Your task to perform on an android device: toggle notification dots Image 0: 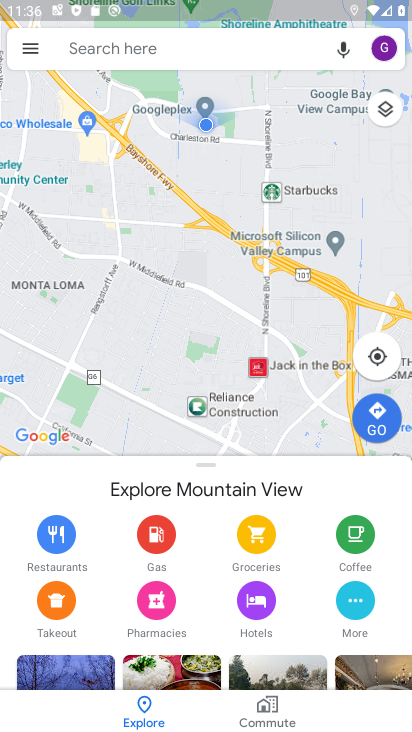
Step 0: press home button
Your task to perform on an android device: toggle notification dots Image 1: 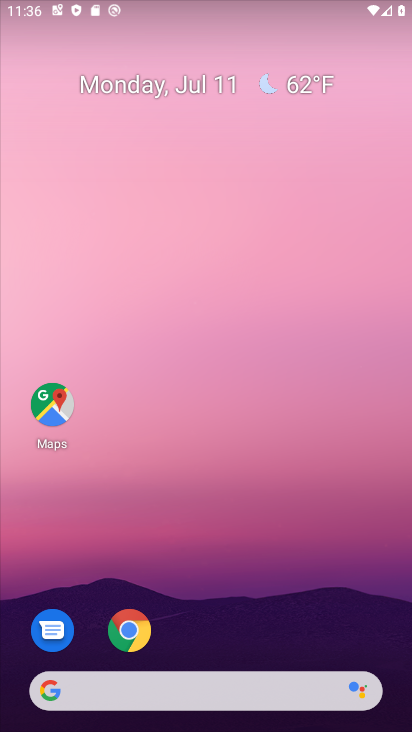
Step 1: drag from (179, 649) to (203, 74)
Your task to perform on an android device: toggle notification dots Image 2: 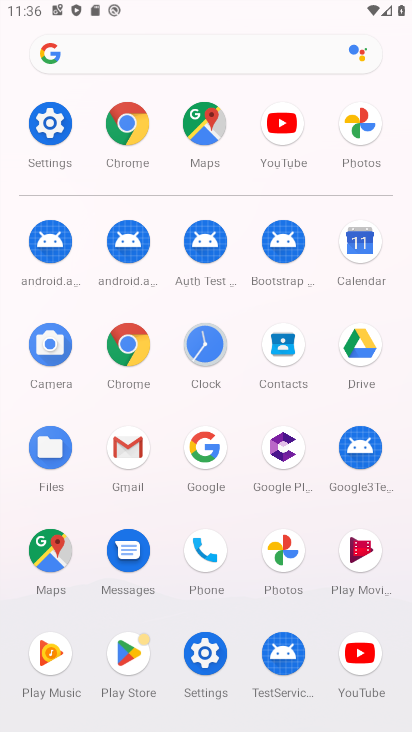
Step 2: click (48, 112)
Your task to perform on an android device: toggle notification dots Image 3: 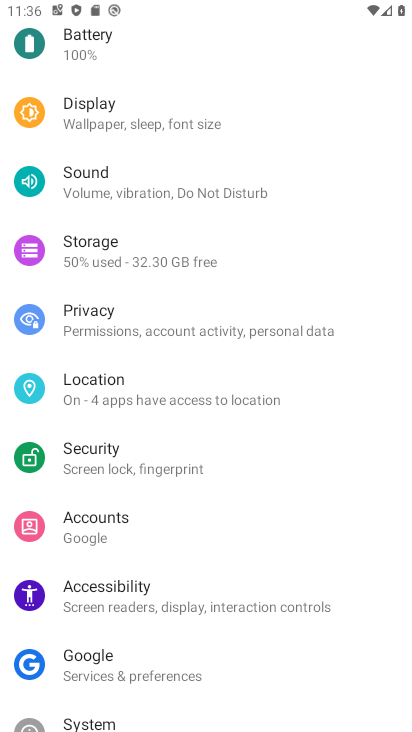
Step 3: drag from (155, 146) to (176, 437)
Your task to perform on an android device: toggle notification dots Image 4: 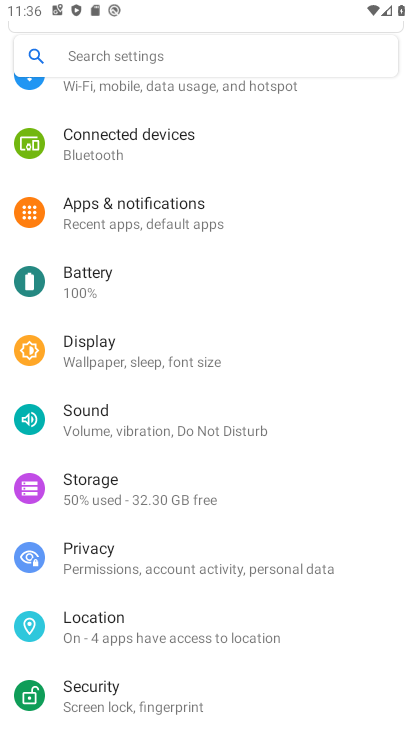
Step 4: click (147, 219)
Your task to perform on an android device: toggle notification dots Image 5: 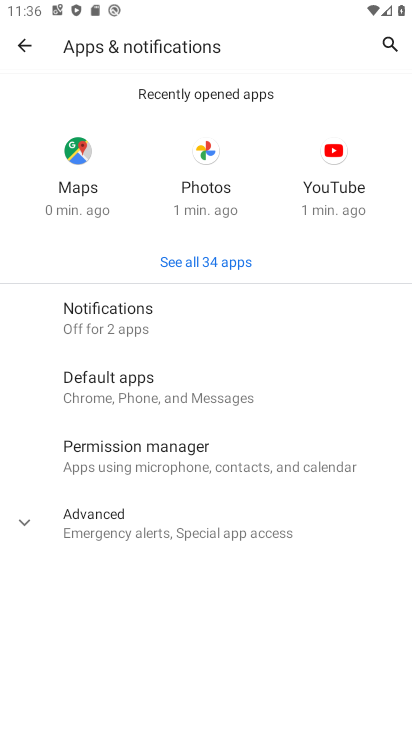
Step 5: click (158, 320)
Your task to perform on an android device: toggle notification dots Image 6: 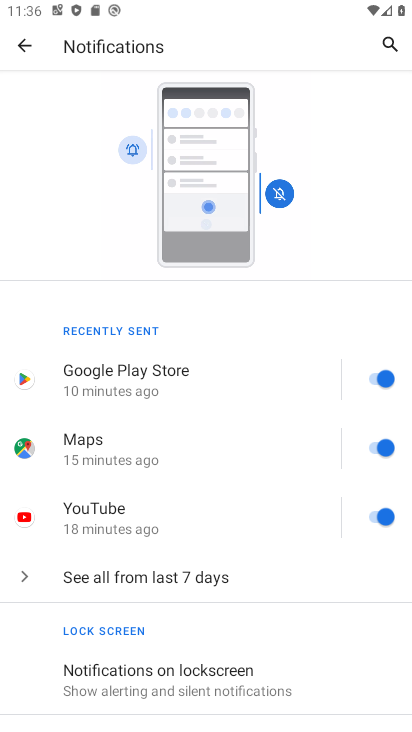
Step 6: drag from (199, 630) to (202, 91)
Your task to perform on an android device: toggle notification dots Image 7: 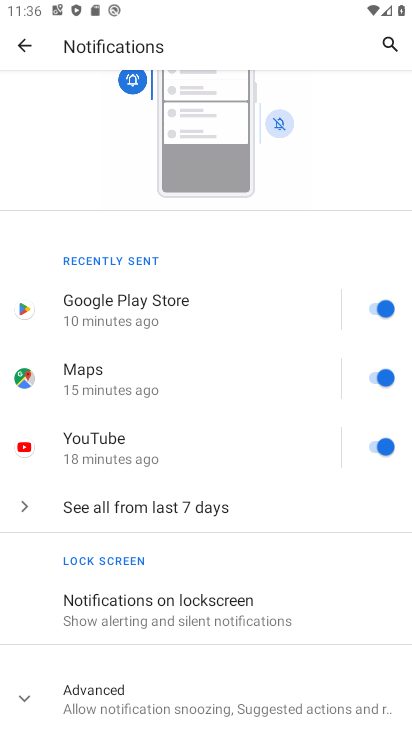
Step 7: click (156, 698)
Your task to perform on an android device: toggle notification dots Image 8: 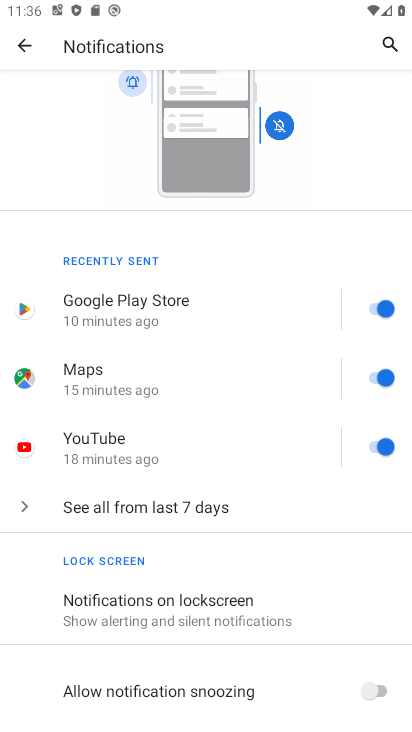
Step 8: drag from (212, 665) to (263, 254)
Your task to perform on an android device: toggle notification dots Image 9: 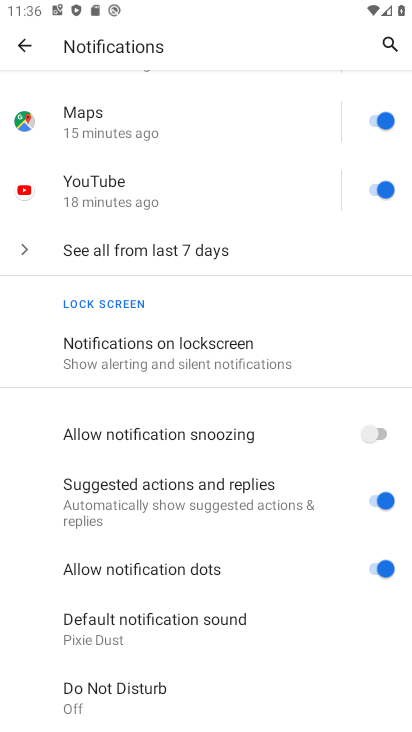
Step 9: click (384, 564)
Your task to perform on an android device: toggle notification dots Image 10: 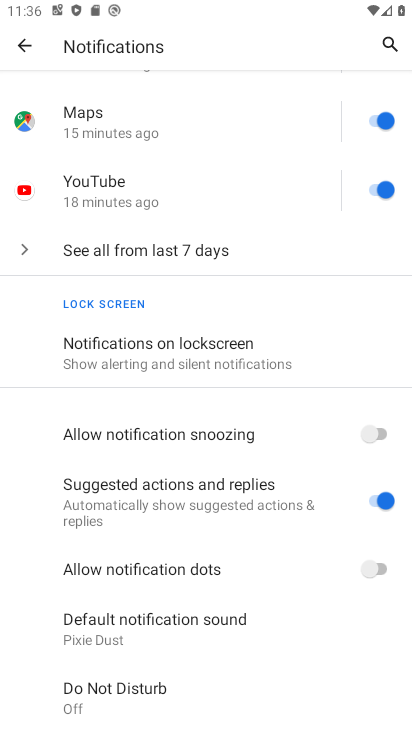
Step 10: task complete